Your task to perform on an android device: add a contact Image 0: 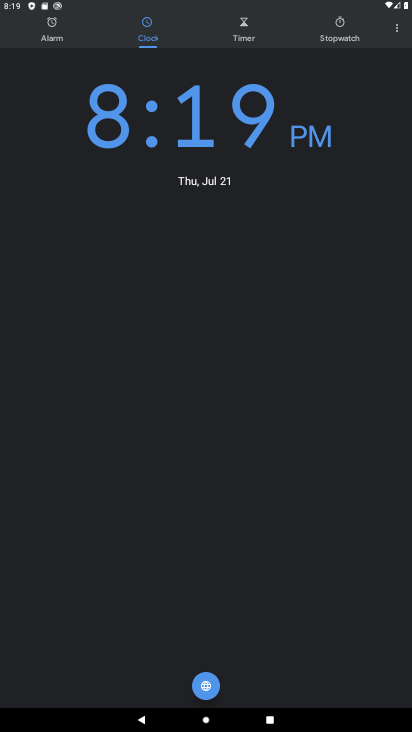
Step 0: press home button
Your task to perform on an android device: add a contact Image 1: 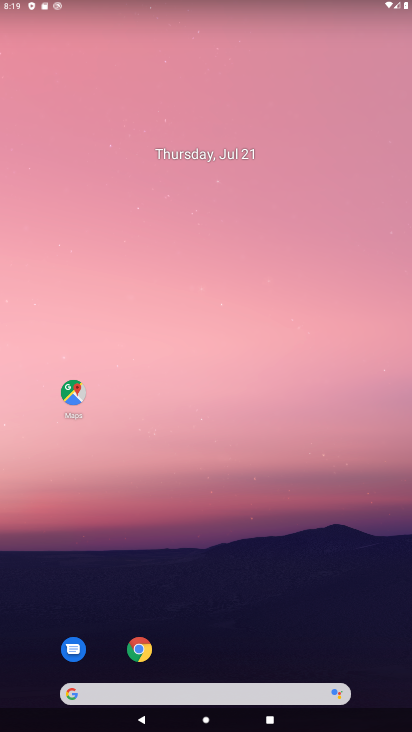
Step 1: drag from (234, 656) to (355, 60)
Your task to perform on an android device: add a contact Image 2: 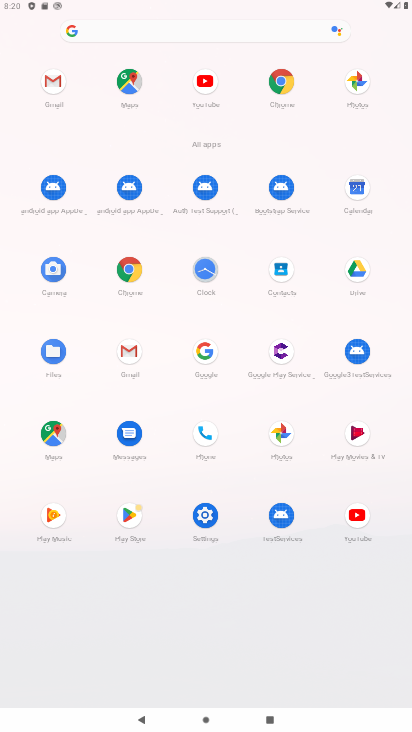
Step 2: click (280, 265)
Your task to perform on an android device: add a contact Image 3: 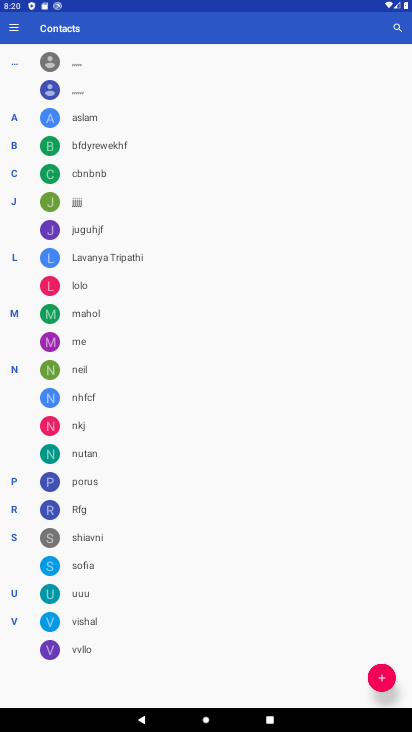
Step 3: click (389, 675)
Your task to perform on an android device: add a contact Image 4: 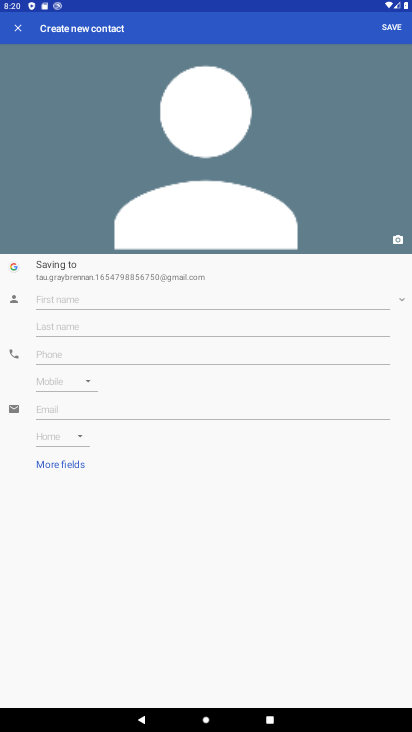
Step 4: type ",,,,,,,,"
Your task to perform on an android device: add a contact Image 5: 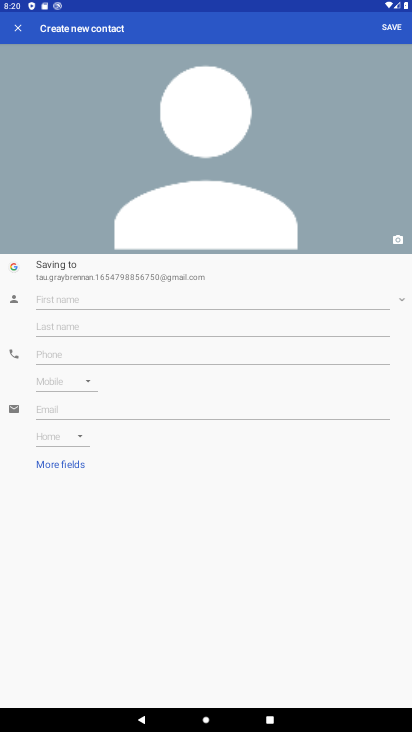
Step 5: click (117, 353)
Your task to perform on an android device: add a contact Image 6: 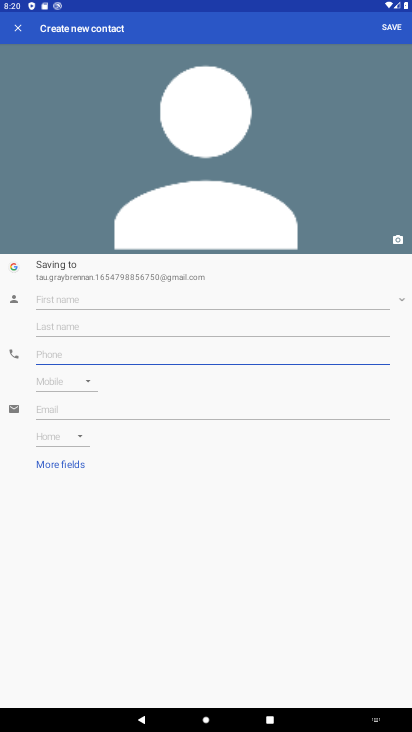
Step 6: type "7654345678"
Your task to perform on an android device: add a contact Image 7: 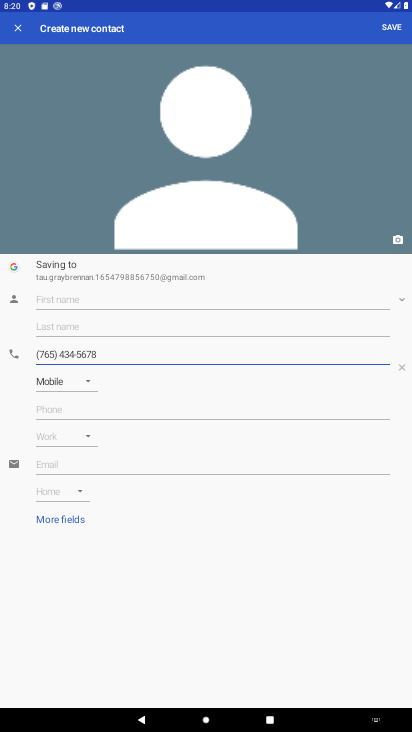
Step 7: click (62, 295)
Your task to perform on an android device: add a contact Image 8: 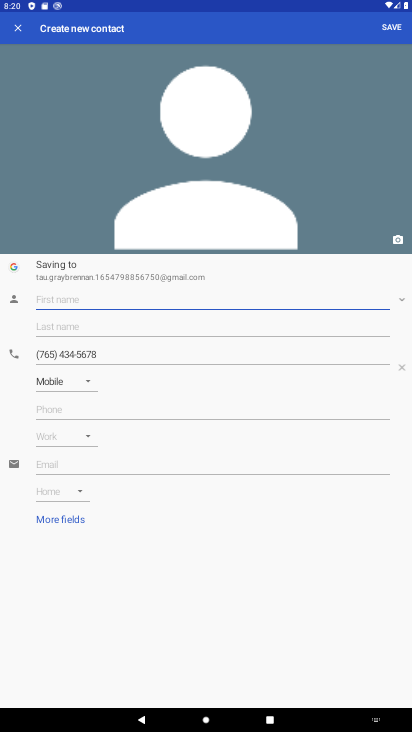
Step 8: type ",,,,,,,"
Your task to perform on an android device: add a contact Image 9: 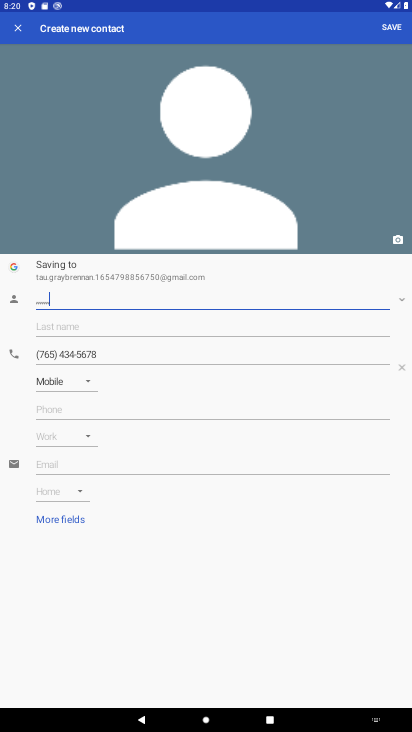
Step 9: click (392, 24)
Your task to perform on an android device: add a contact Image 10: 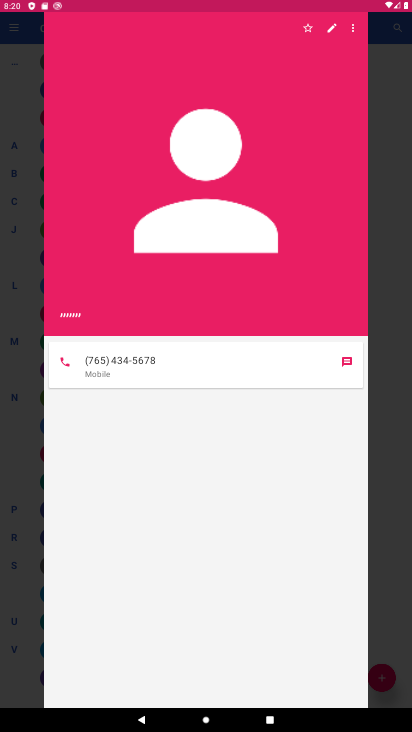
Step 10: task complete